Your task to perform on an android device: add a contact Image 0: 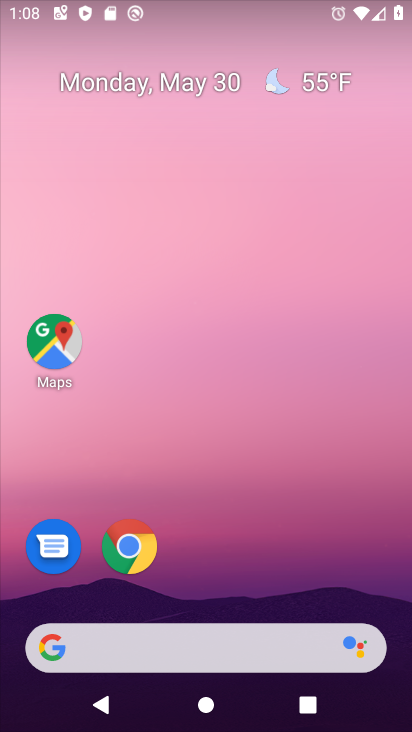
Step 0: press home button
Your task to perform on an android device: add a contact Image 1: 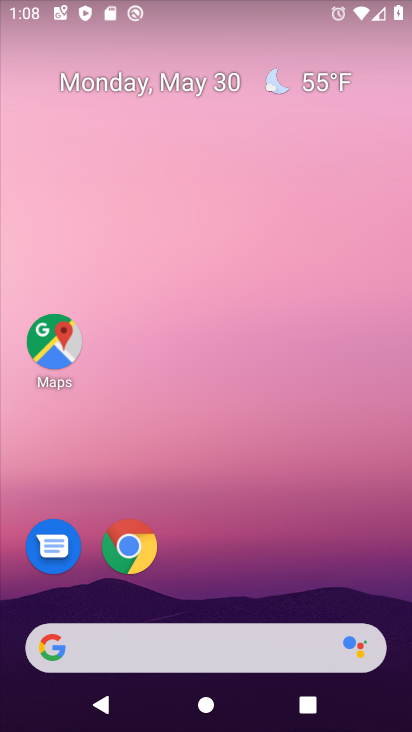
Step 1: drag from (272, 609) to (255, 170)
Your task to perform on an android device: add a contact Image 2: 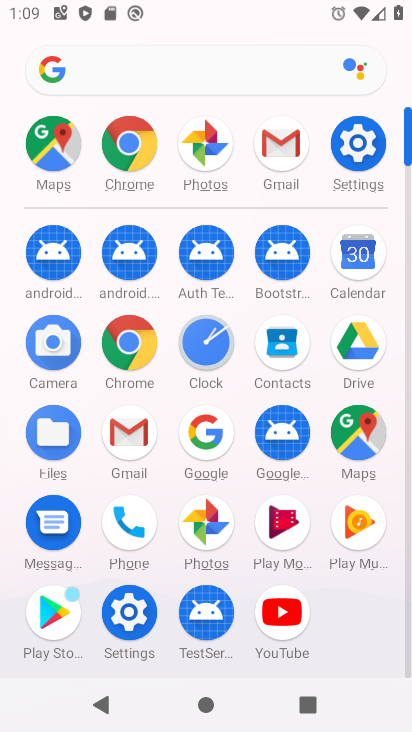
Step 2: click (287, 335)
Your task to perform on an android device: add a contact Image 3: 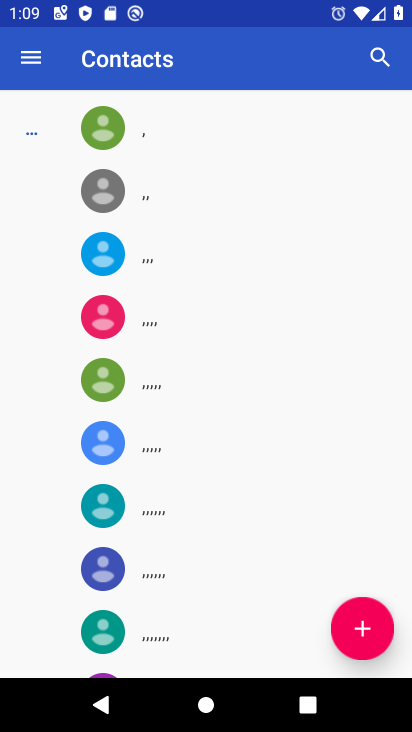
Step 3: drag from (306, 532) to (308, 177)
Your task to perform on an android device: add a contact Image 4: 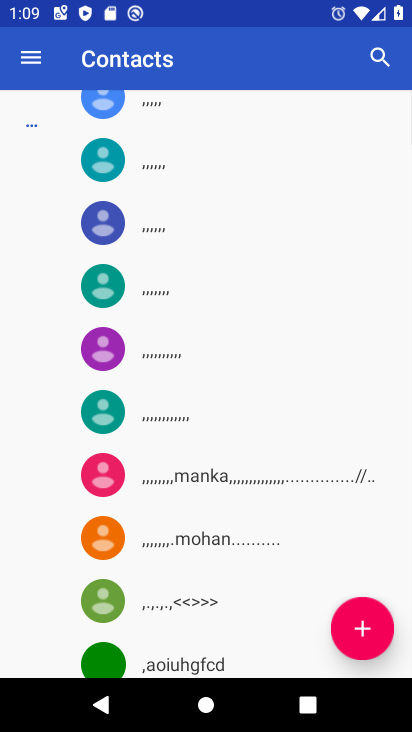
Step 4: click (362, 643)
Your task to perform on an android device: add a contact Image 5: 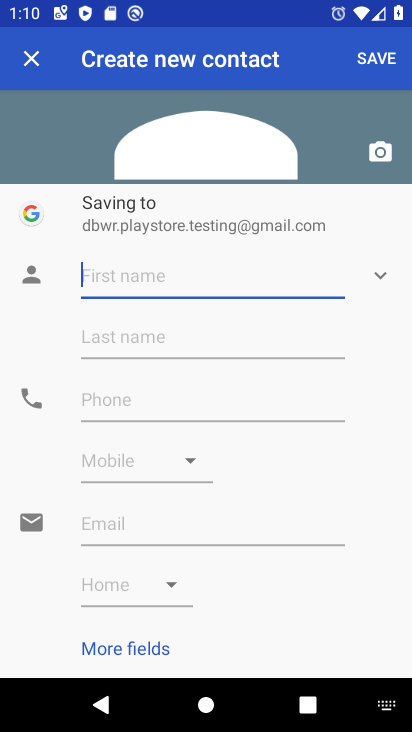
Step 5: type "gbbjhjhjh"
Your task to perform on an android device: add a contact Image 6: 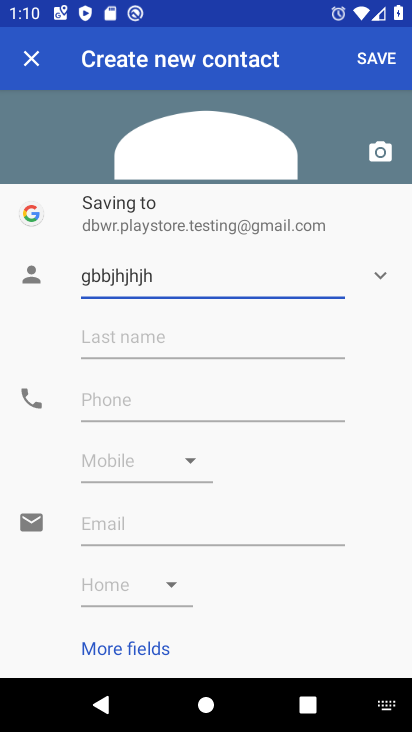
Step 6: click (100, 395)
Your task to perform on an android device: add a contact Image 7: 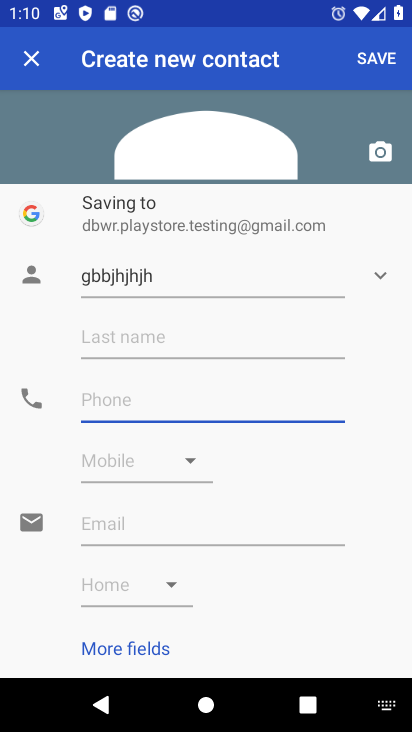
Step 7: type "78787878"
Your task to perform on an android device: add a contact Image 8: 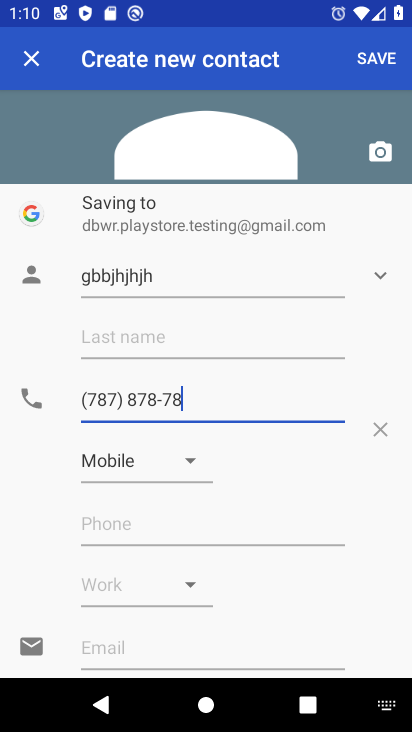
Step 8: click (378, 59)
Your task to perform on an android device: add a contact Image 9: 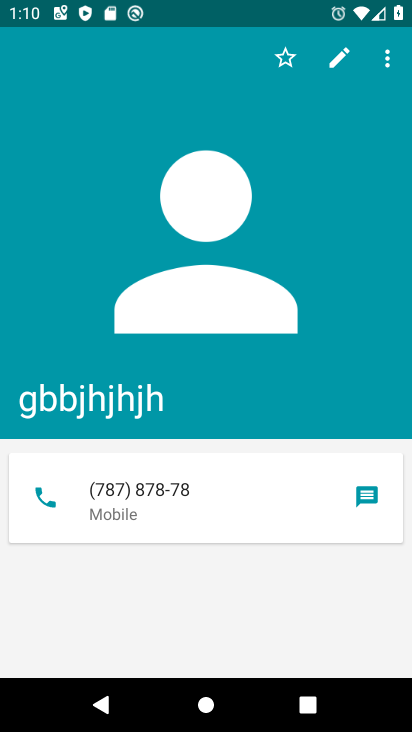
Step 9: task complete